Your task to perform on an android device: Go to ESPN.com Image 0: 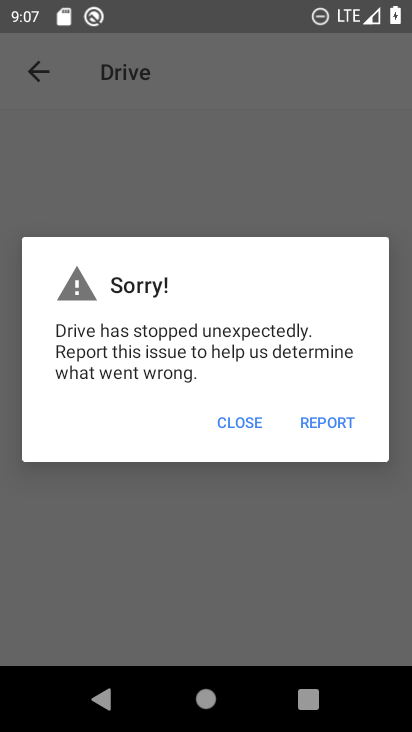
Step 0: press home button
Your task to perform on an android device: Go to ESPN.com Image 1: 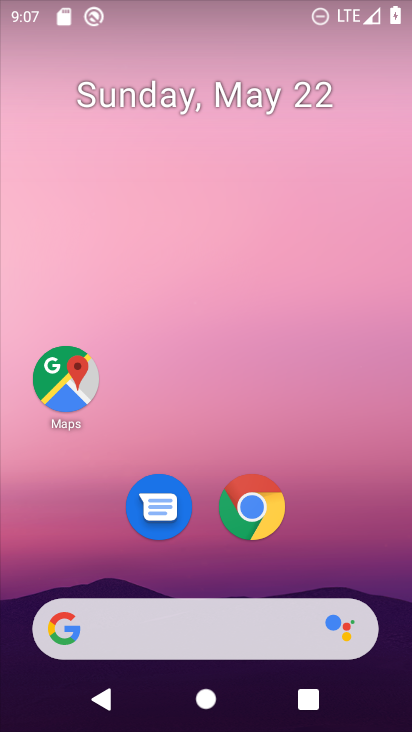
Step 1: click (272, 636)
Your task to perform on an android device: Go to ESPN.com Image 2: 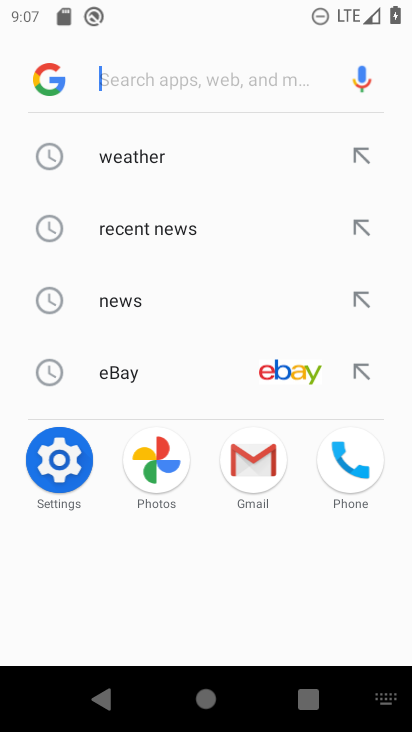
Step 2: type "espn.com"
Your task to perform on an android device: Go to ESPN.com Image 3: 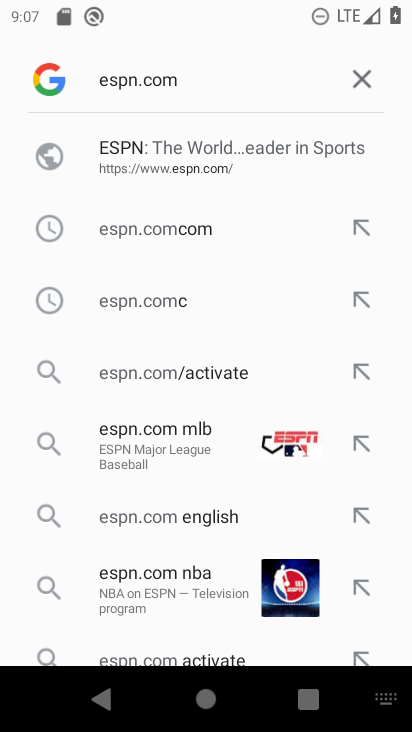
Step 3: click (236, 137)
Your task to perform on an android device: Go to ESPN.com Image 4: 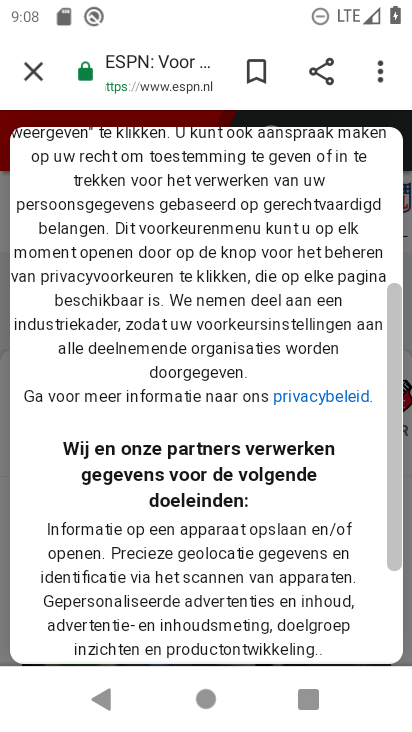
Step 4: task complete